Your task to perform on an android device: What's the weather today? Image 0: 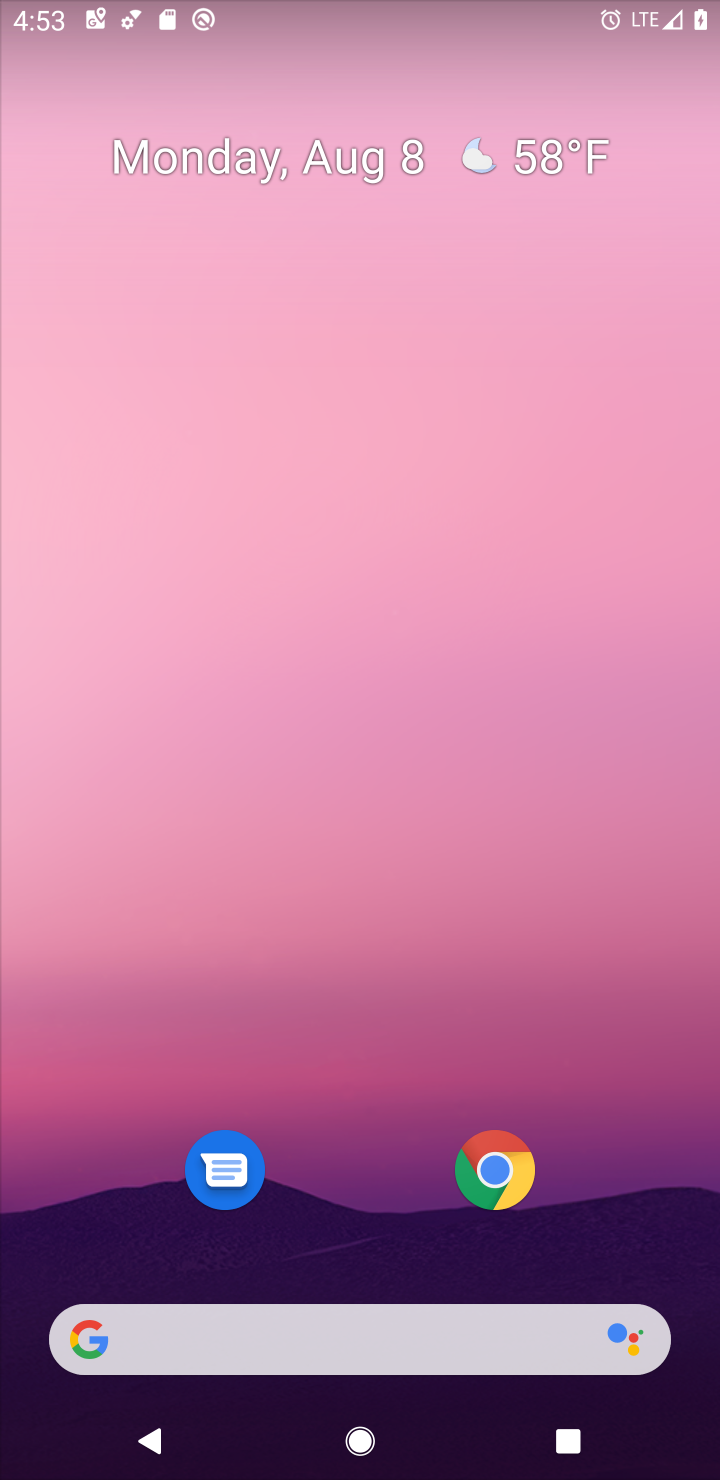
Step 0: drag from (360, 1202) to (322, 322)
Your task to perform on an android device: What's the weather today? Image 1: 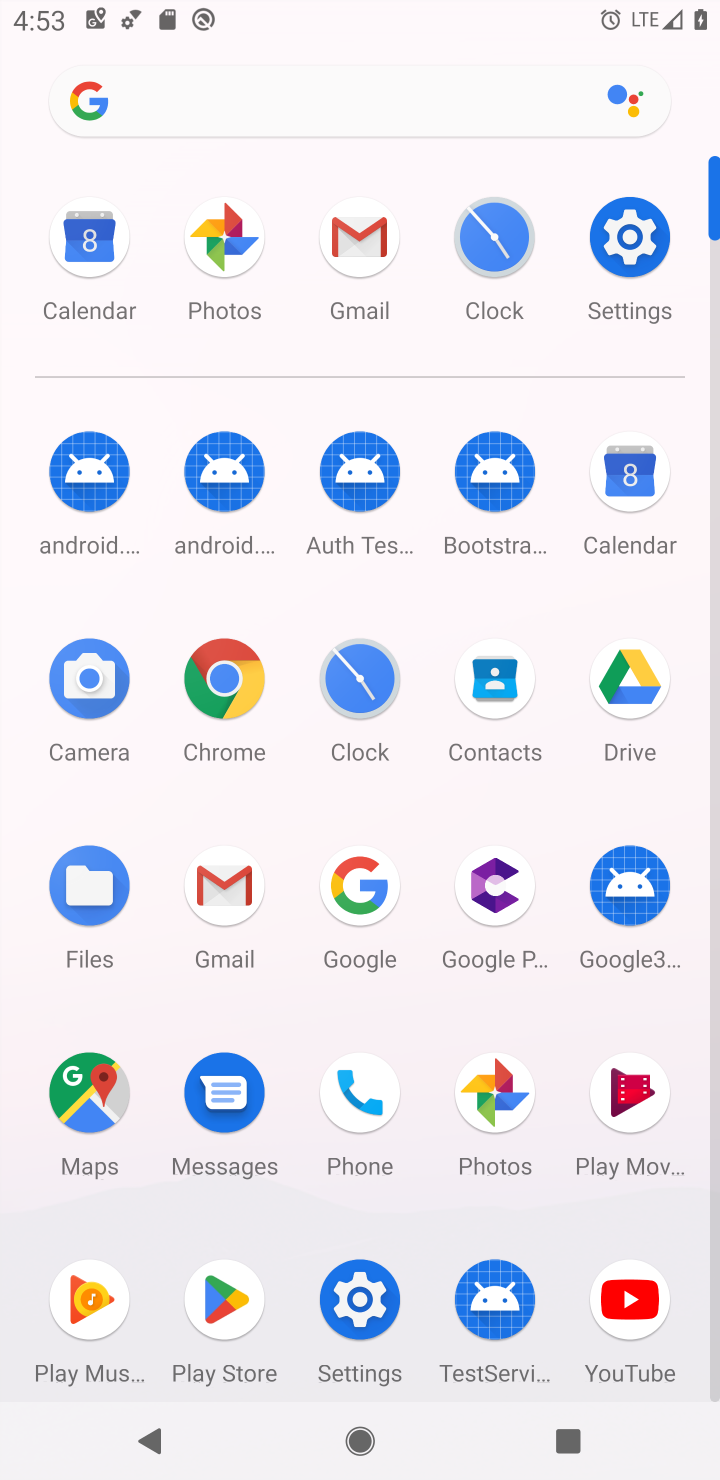
Step 1: click (361, 901)
Your task to perform on an android device: What's the weather today? Image 2: 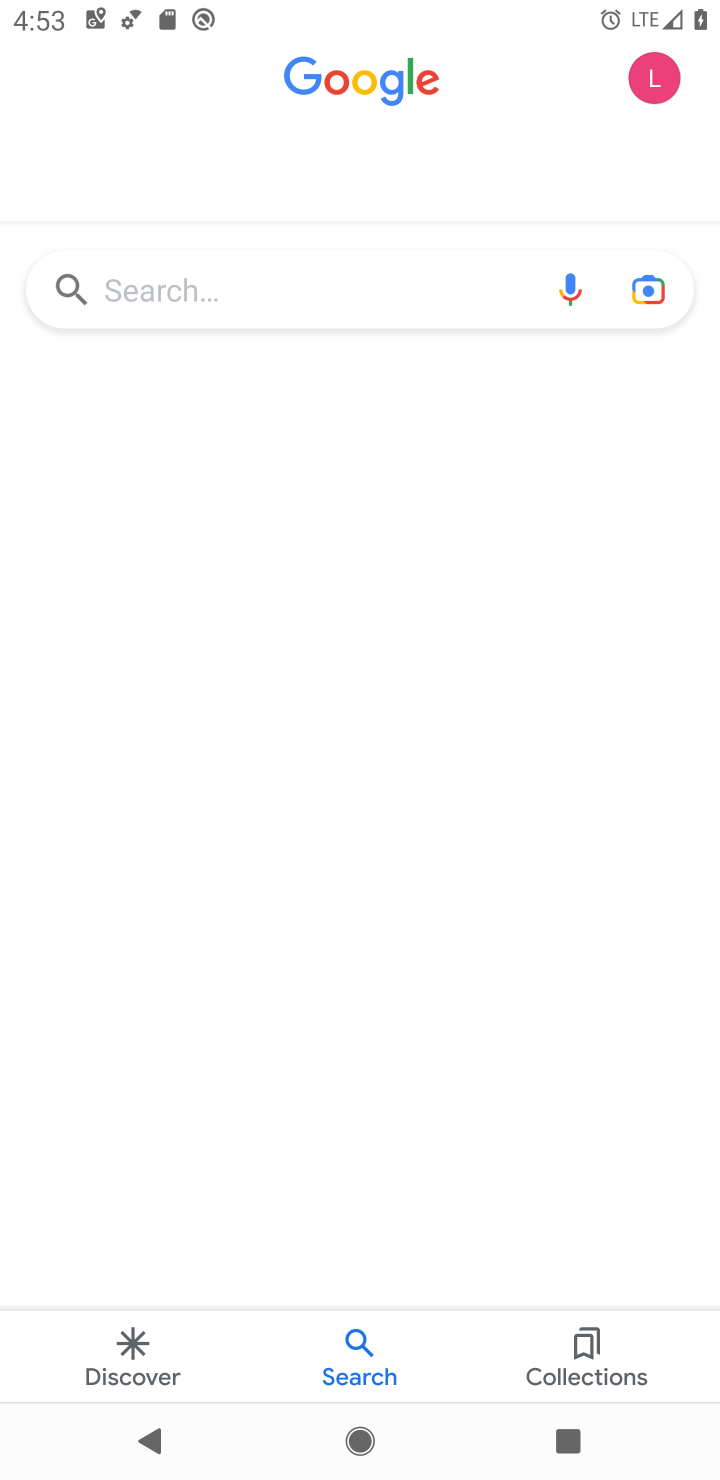
Step 2: click (239, 326)
Your task to perform on an android device: What's the weather today? Image 3: 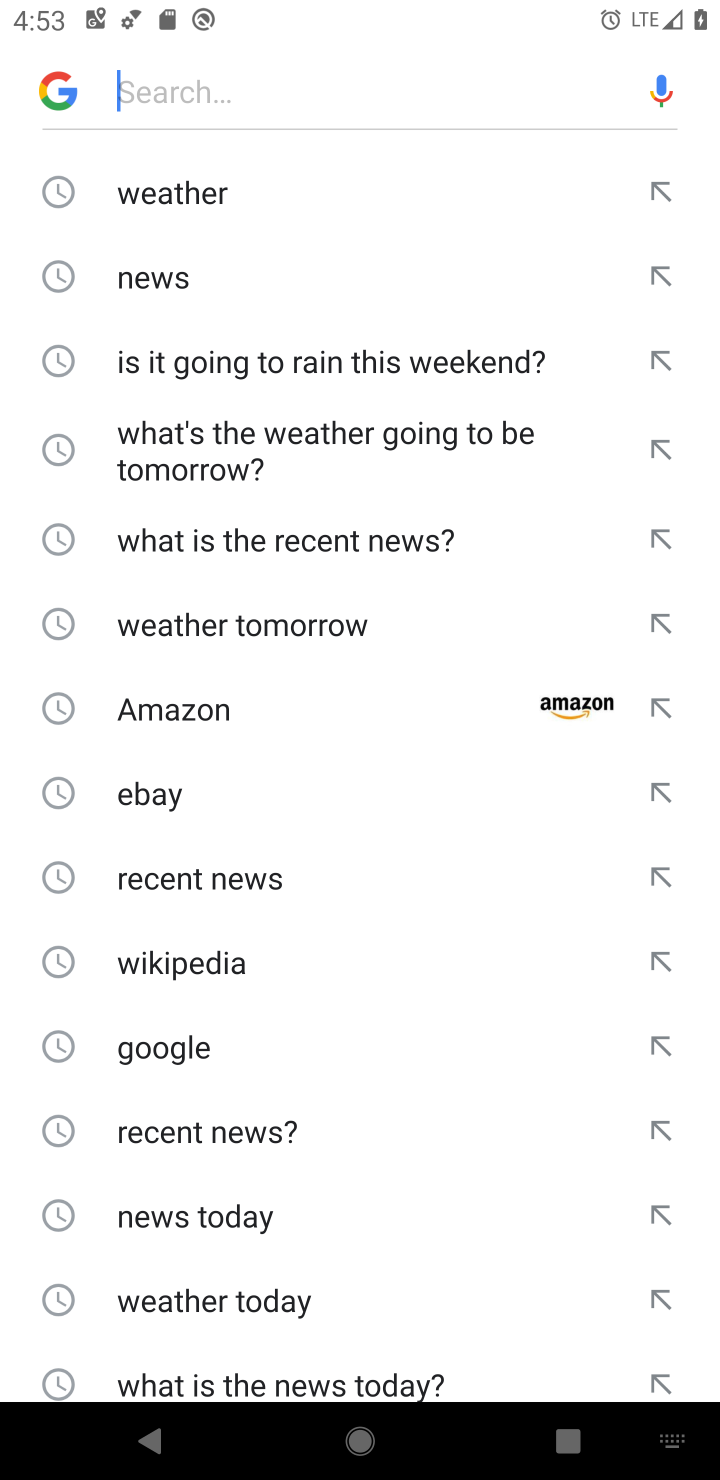
Step 3: click (181, 173)
Your task to perform on an android device: What's the weather today? Image 4: 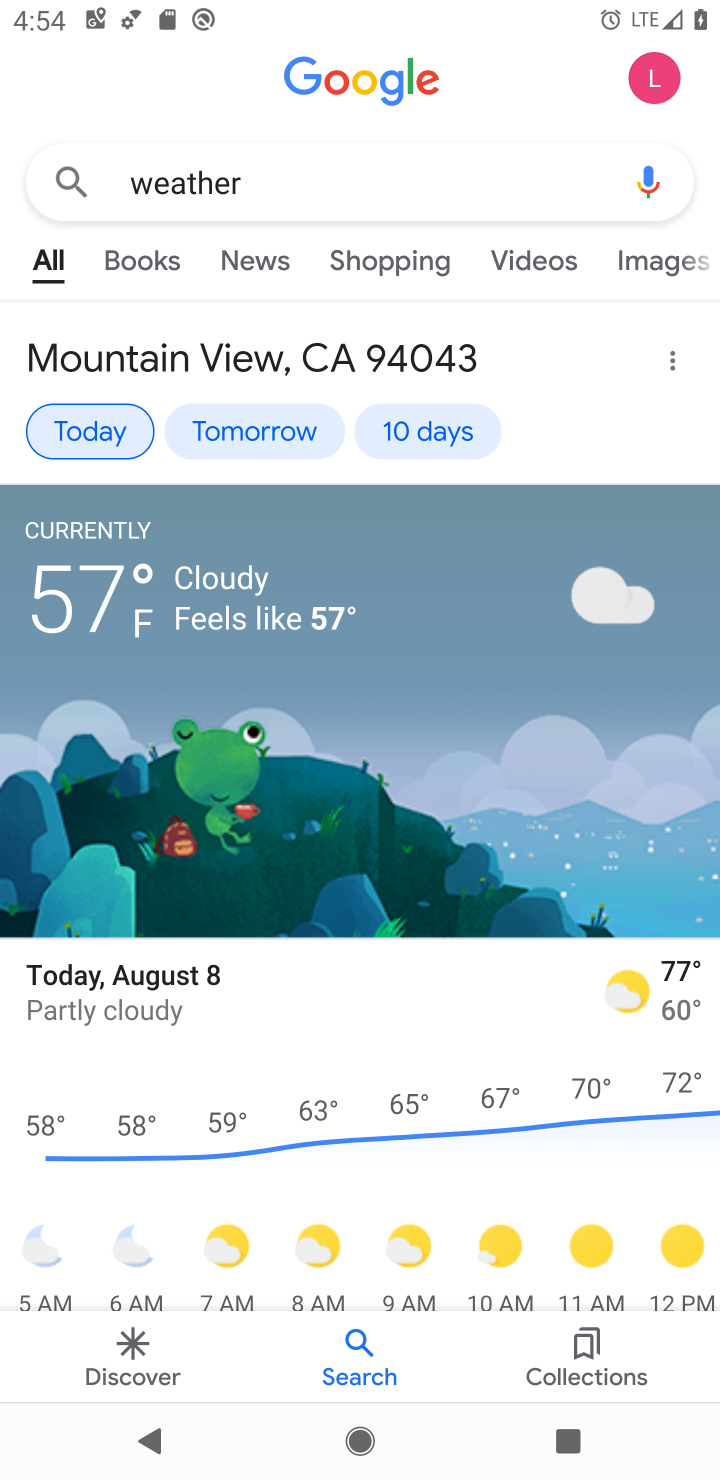
Step 4: task complete